Your task to perform on an android device: turn vacation reply on in the gmail app Image 0: 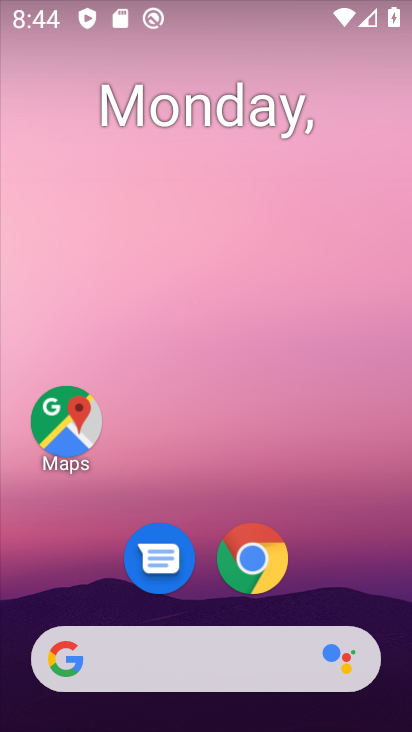
Step 0: drag from (340, 566) to (331, 129)
Your task to perform on an android device: turn vacation reply on in the gmail app Image 1: 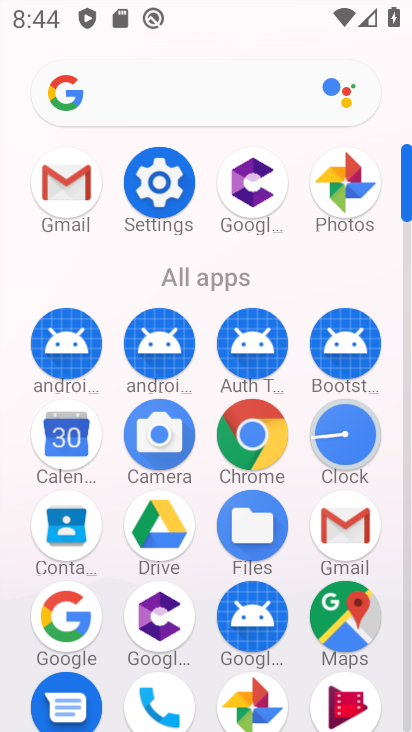
Step 1: click (73, 181)
Your task to perform on an android device: turn vacation reply on in the gmail app Image 2: 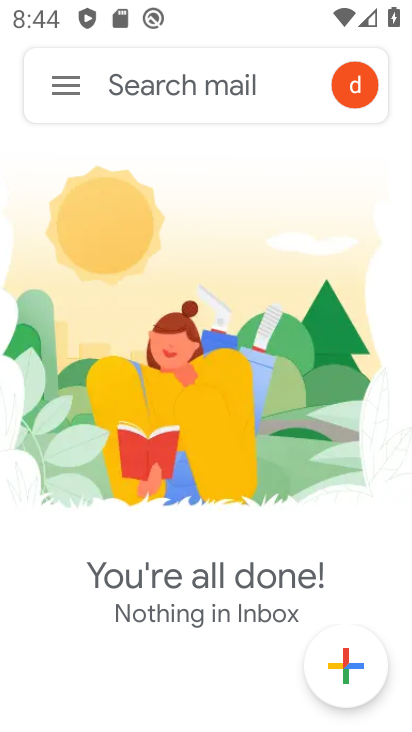
Step 2: click (59, 78)
Your task to perform on an android device: turn vacation reply on in the gmail app Image 3: 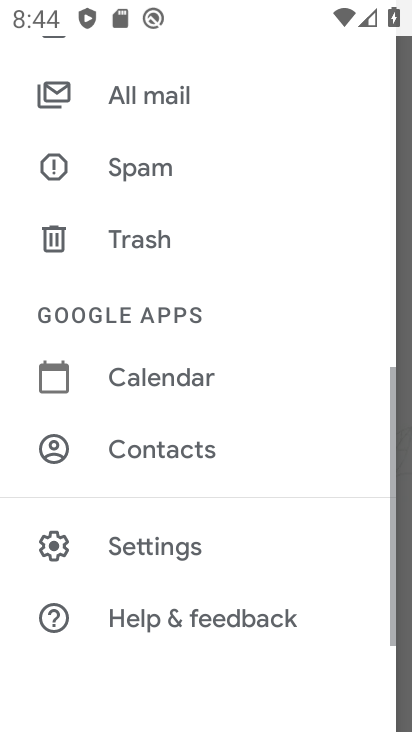
Step 3: drag from (211, 566) to (239, 462)
Your task to perform on an android device: turn vacation reply on in the gmail app Image 4: 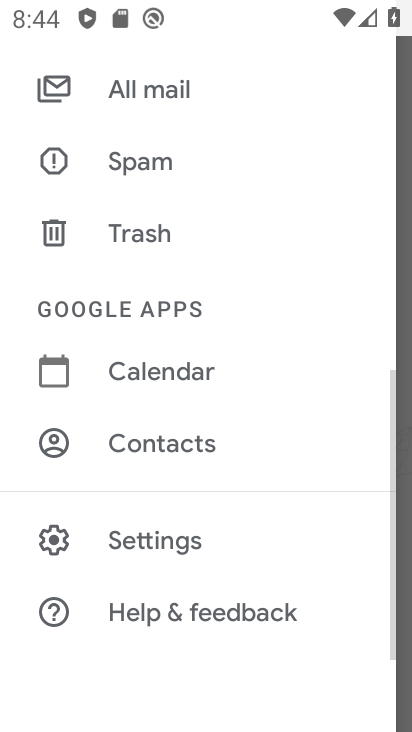
Step 4: click (146, 545)
Your task to perform on an android device: turn vacation reply on in the gmail app Image 5: 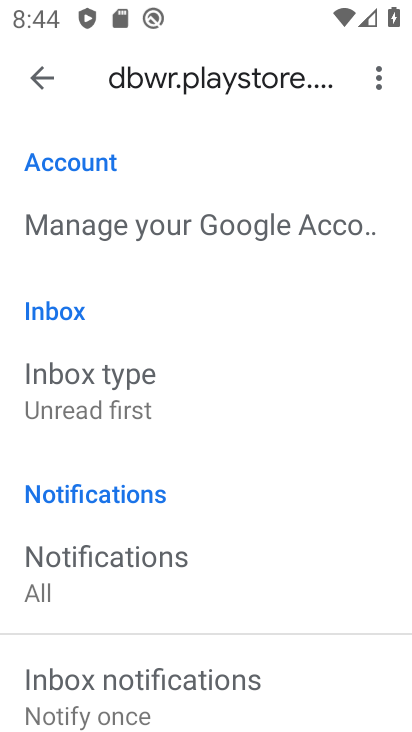
Step 5: drag from (207, 579) to (281, 143)
Your task to perform on an android device: turn vacation reply on in the gmail app Image 6: 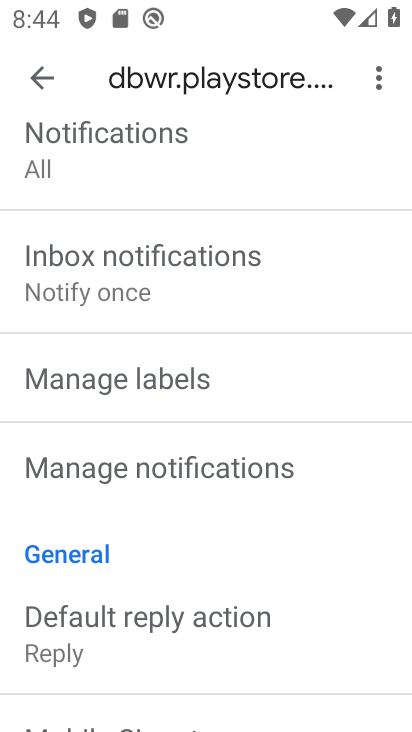
Step 6: drag from (133, 611) to (209, 201)
Your task to perform on an android device: turn vacation reply on in the gmail app Image 7: 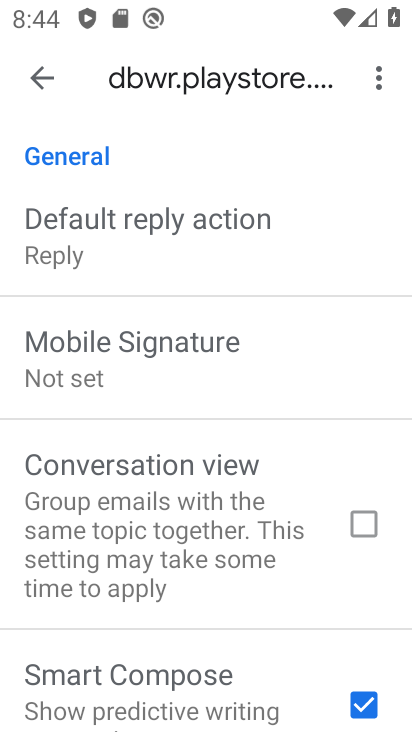
Step 7: drag from (120, 617) to (264, 201)
Your task to perform on an android device: turn vacation reply on in the gmail app Image 8: 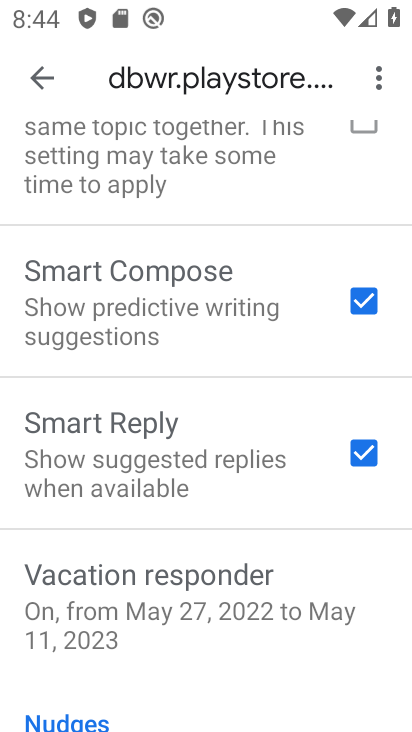
Step 8: click (145, 577)
Your task to perform on an android device: turn vacation reply on in the gmail app Image 9: 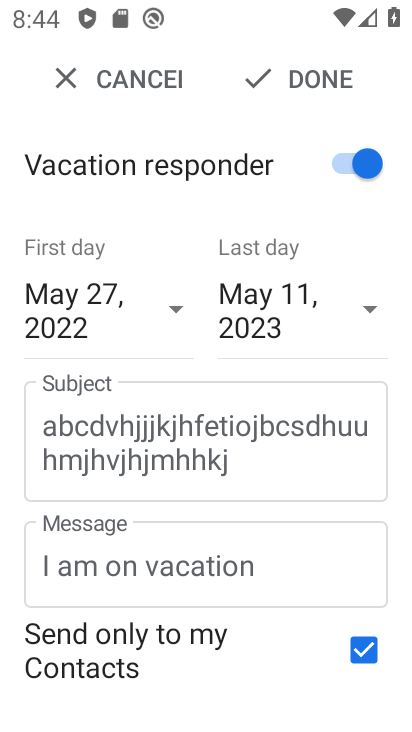
Step 9: click (315, 74)
Your task to perform on an android device: turn vacation reply on in the gmail app Image 10: 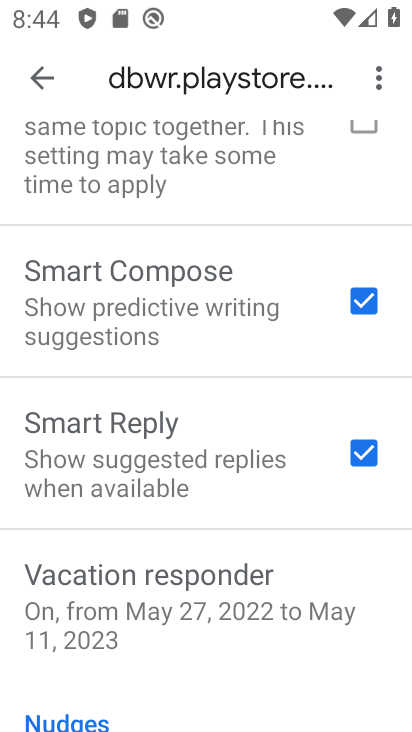
Step 10: task complete